Your task to perform on an android device: Search for seafood restaurants on Google Maps Image 0: 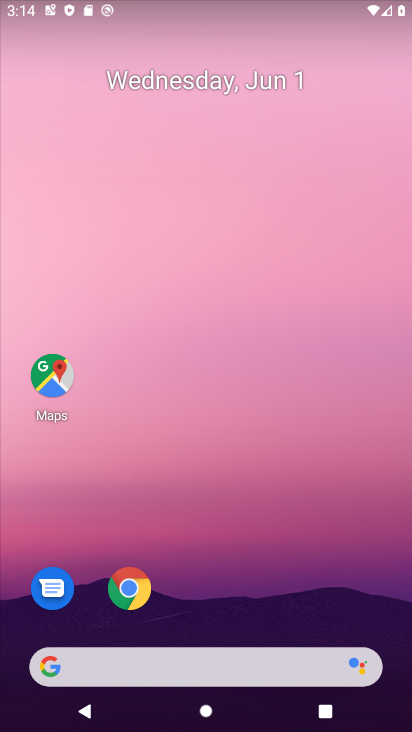
Step 0: click (39, 389)
Your task to perform on an android device: Search for seafood restaurants on Google Maps Image 1: 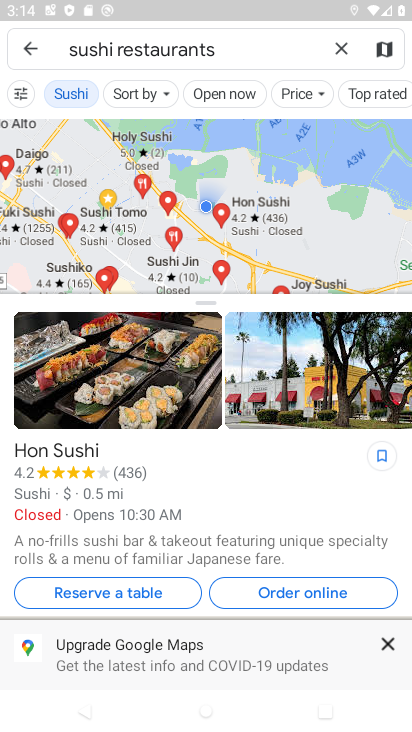
Step 1: click (338, 42)
Your task to perform on an android device: Search for seafood restaurants on Google Maps Image 2: 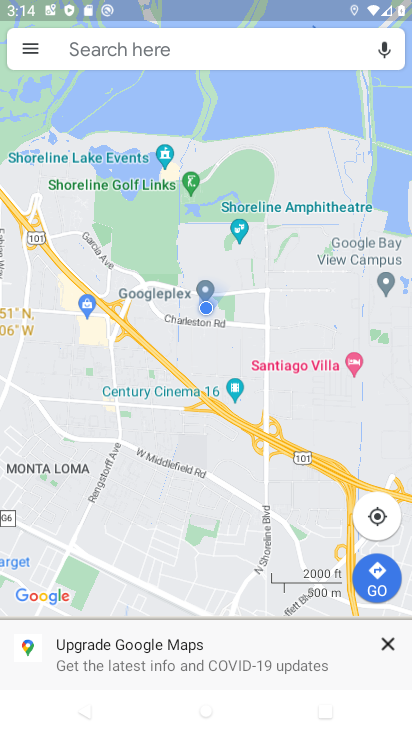
Step 2: click (259, 56)
Your task to perform on an android device: Search for seafood restaurants on Google Maps Image 3: 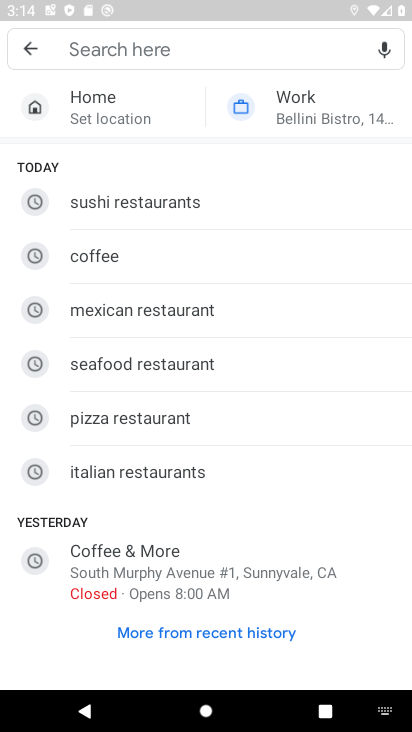
Step 3: click (268, 362)
Your task to perform on an android device: Search for seafood restaurants on Google Maps Image 4: 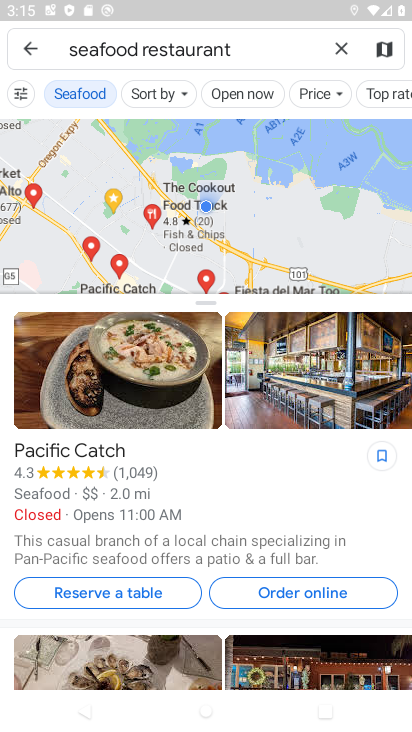
Step 4: task complete